Your task to perform on an android device: turn on improve location accuracy Image 0: 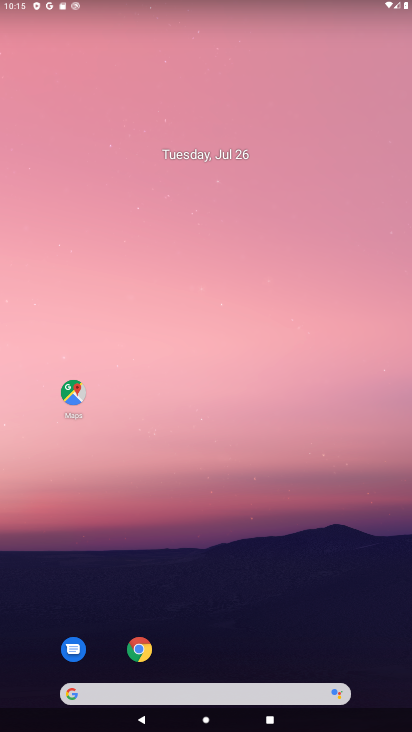
Step 0: drag from (254, 686) to (260, 148)
Your task to perform on an android device: turn on improve location accuracy Image 1: 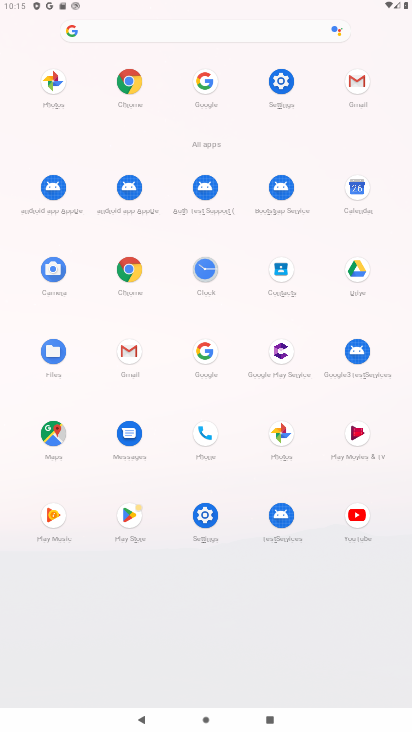
Step 1: click (284, 88)
Your task to perform on an android device: turn on improve location accuracy Image 2: 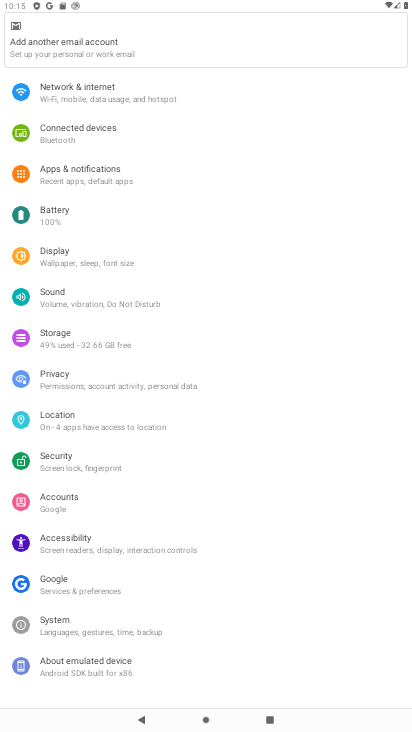
Step 2: click (68, 424)
Your task to perform on an android device: turn on improve location accuracy Image 3: 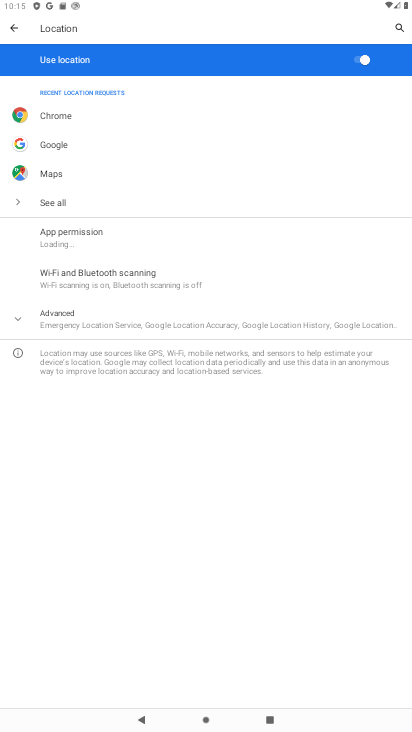
Step 3: click (71, 320)
Your task to perform on an android device: turn on improve location accuracy Image 4: 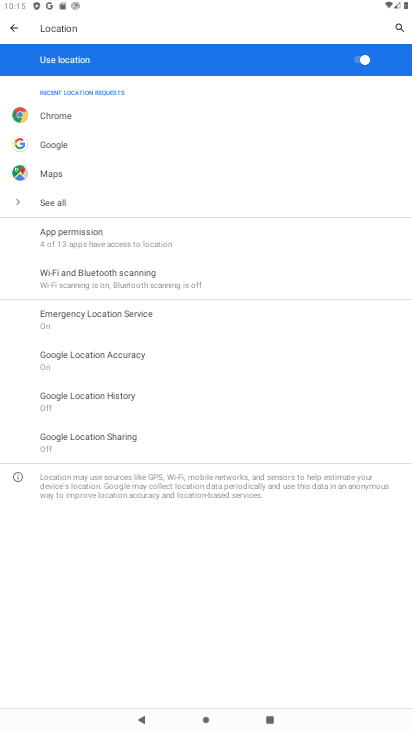
Step 4: click (97, 356)
Your task to perform on an android device: turn on improve location accuracy Image 5: 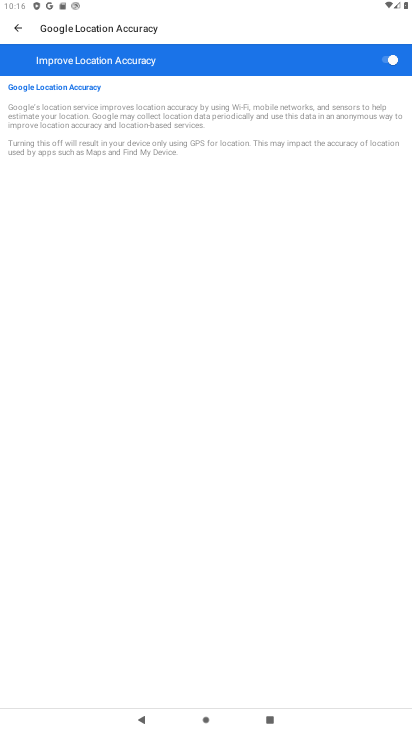
Step 5: task complete